Your task to perform on an android device: turn off location history Image 0: 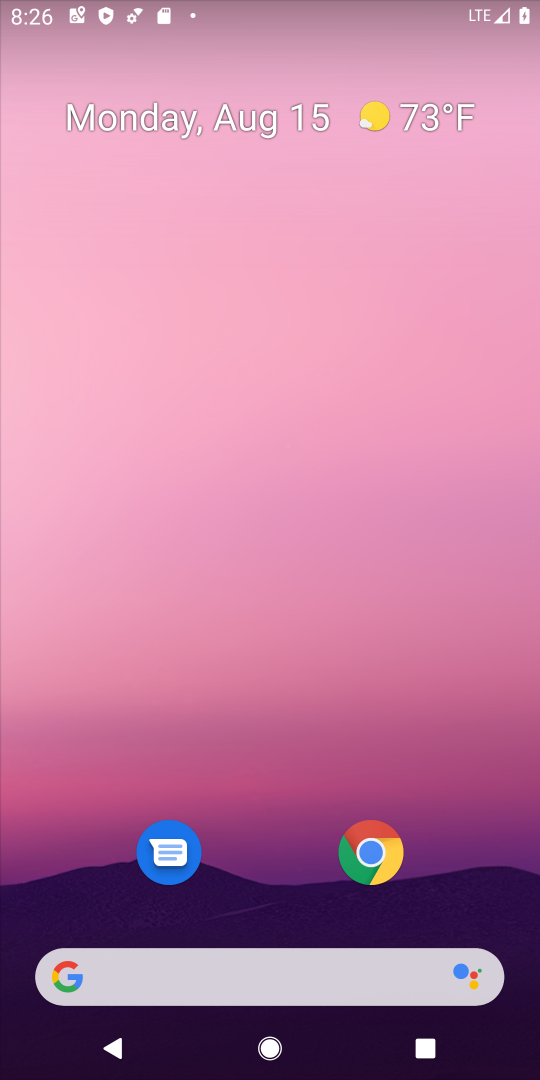
Step 0: drag from (218, 987) to (296, 79)
Your task to perform on an android device: turn off location history Image 1: 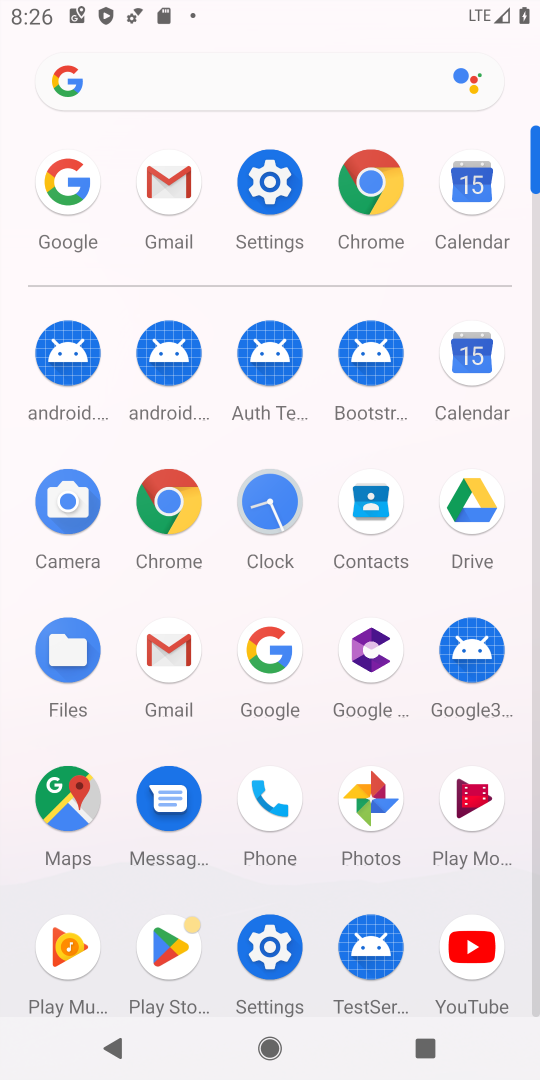
Step 1: click (270, 181)
Your task to perform on an android device: turn off location history Image 2: 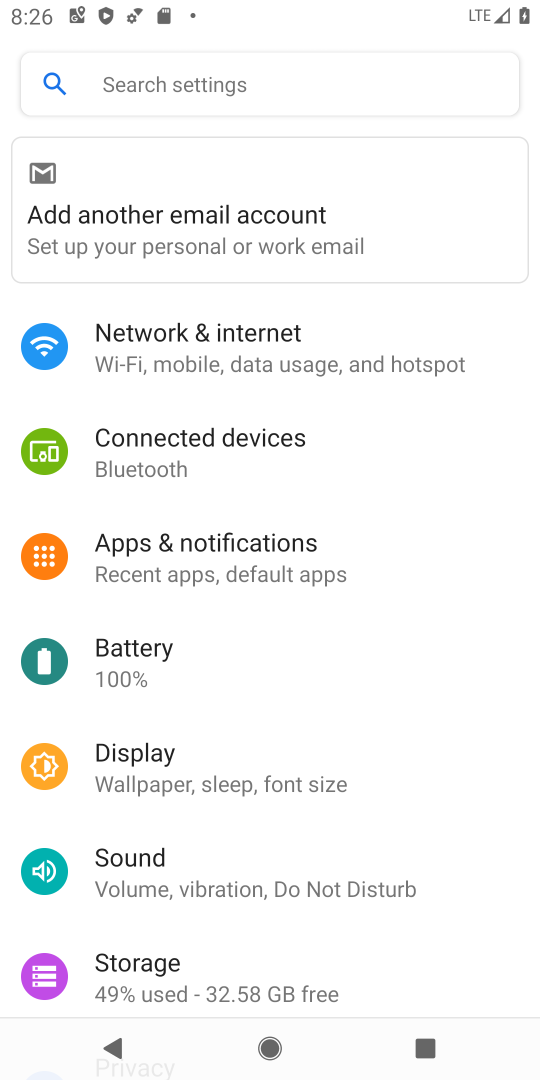
Step 2: drag from (226, 659) to (269, 535)
Your task to perform on an android device: turn off location history Image 3: 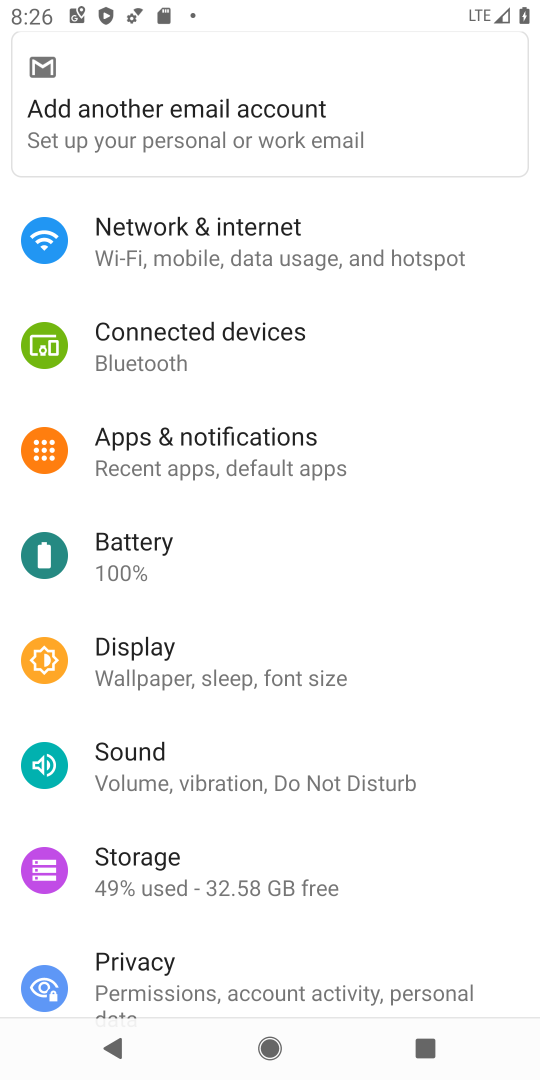
Step 3: drag from (187, 733) to (271, 620)
Your task to perform on an android device: turn off location history Image 4: 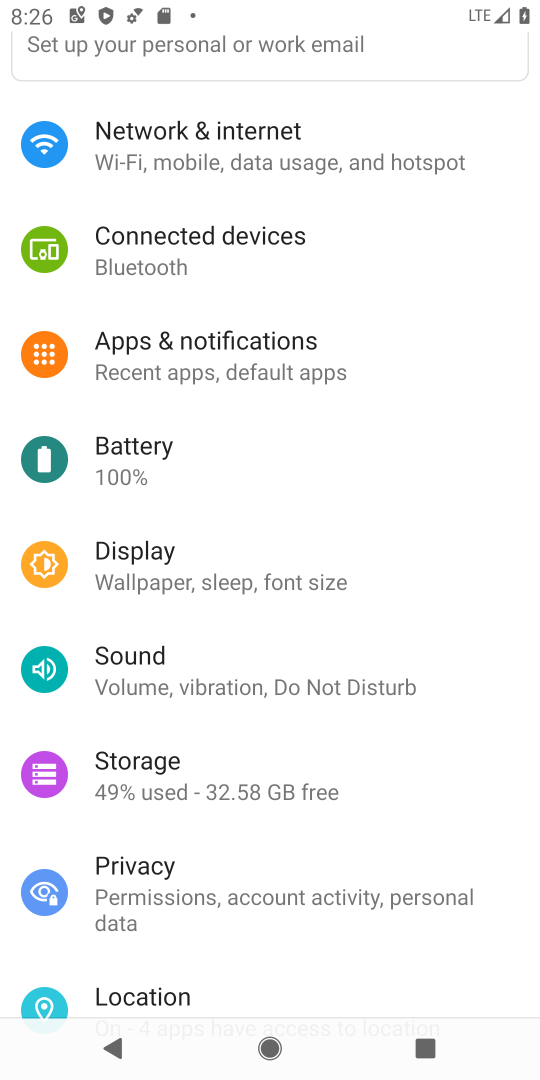
Step 4: drag from (235, 769) to (331, 615)
Your task to perform on an android device: turn off location history Image 5: 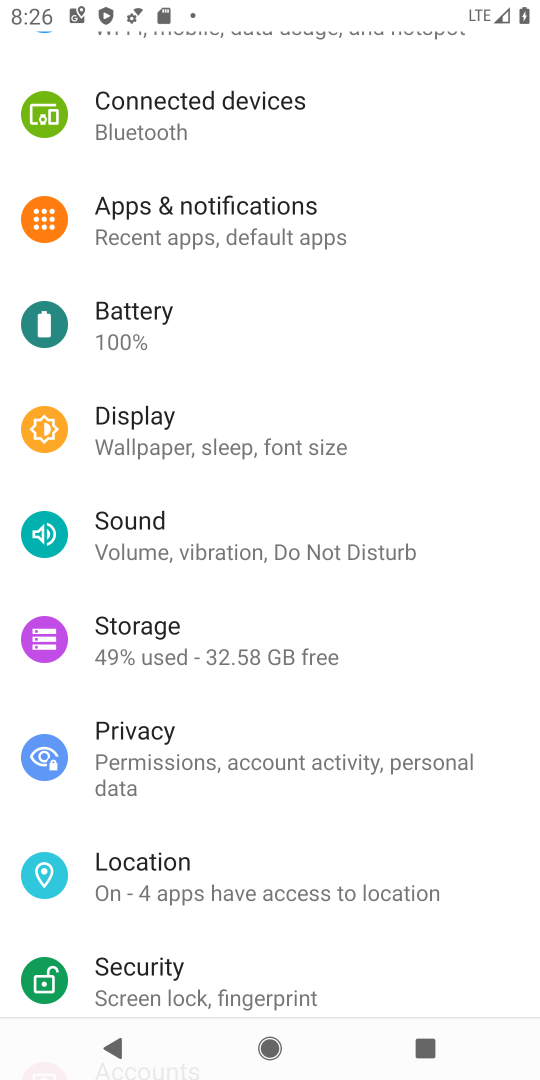
Step 5: click (177, 883)
Your task to perform on an android device: turn off location history Image 6: 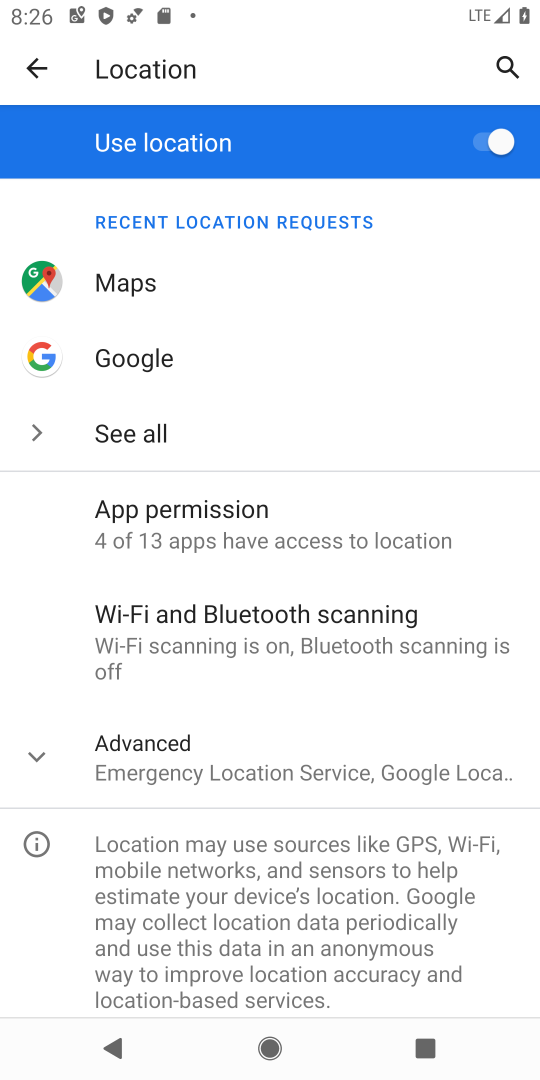
Step 6: click (280, 773)
Your task to perform on an android device: turn off location history Image 7: 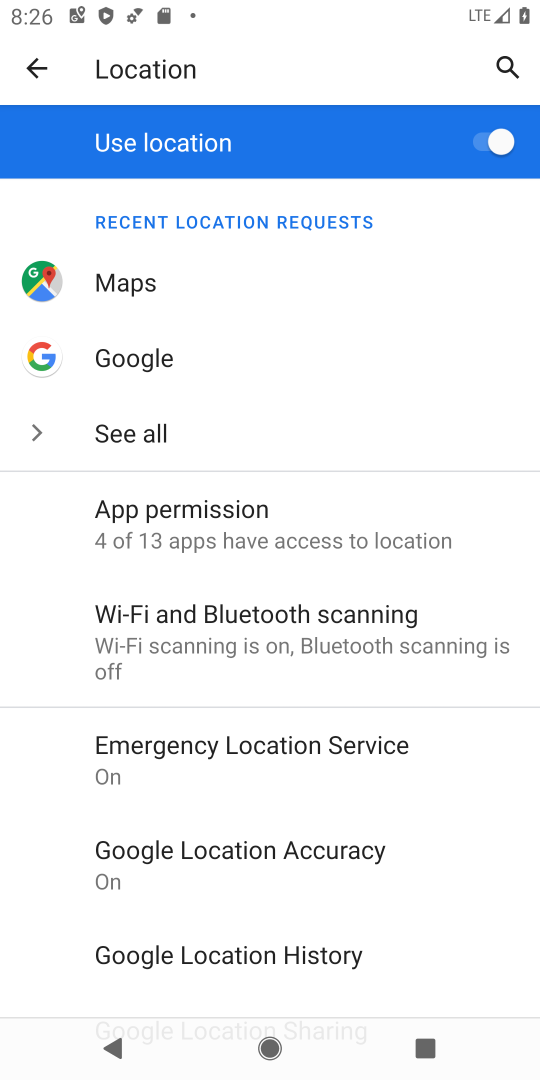
Step 7: drag from (238, 908) to (361, 708)
Your task to perform on an android device: turn off location history Image 8: 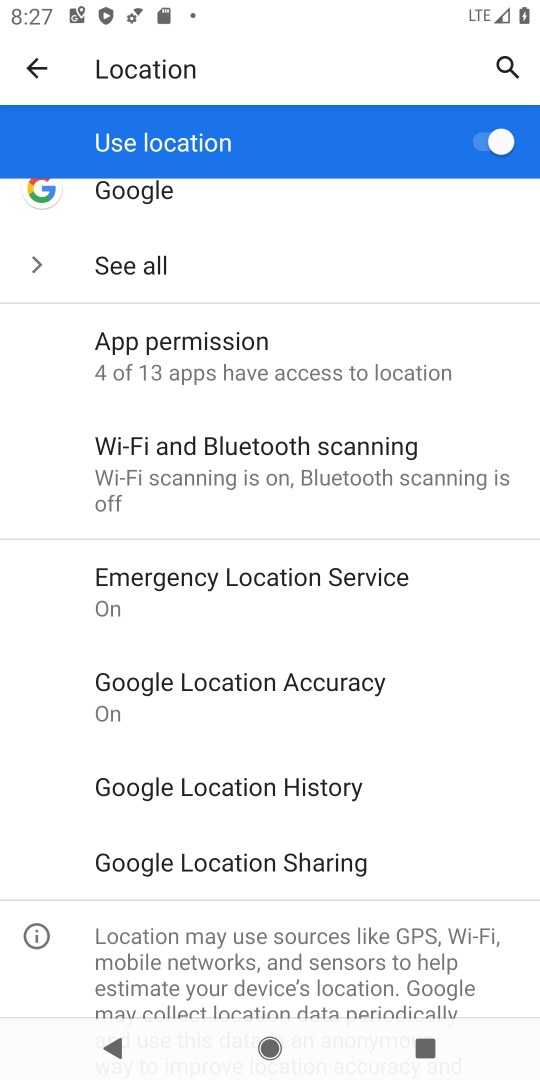
Step 8: click (317, 787)
Your task to perform on an android device: turn off location history Image 9: 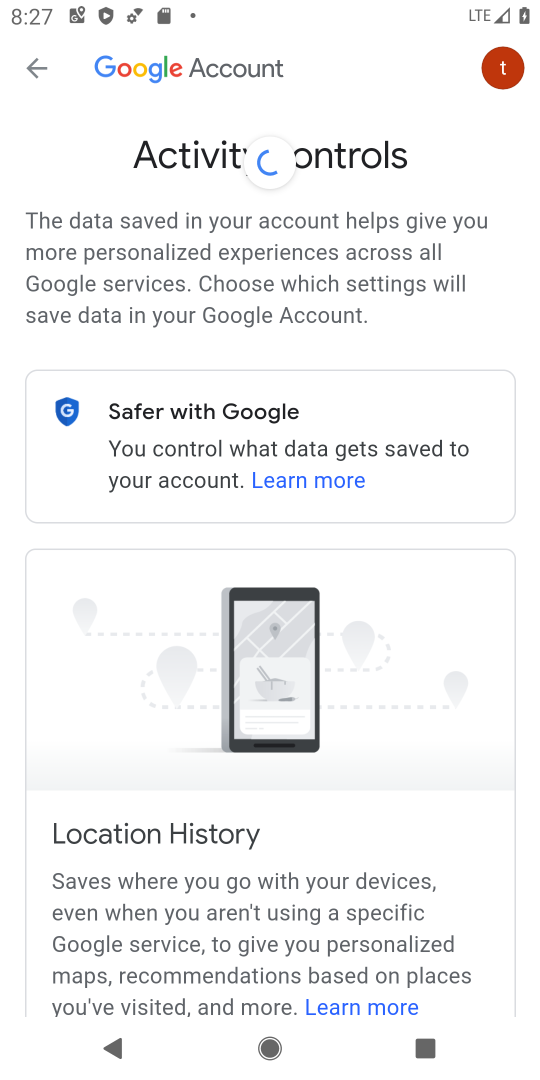
Step 9: task complete